Your task to perform on an android device: turn off translation in the chrome app Image 0: 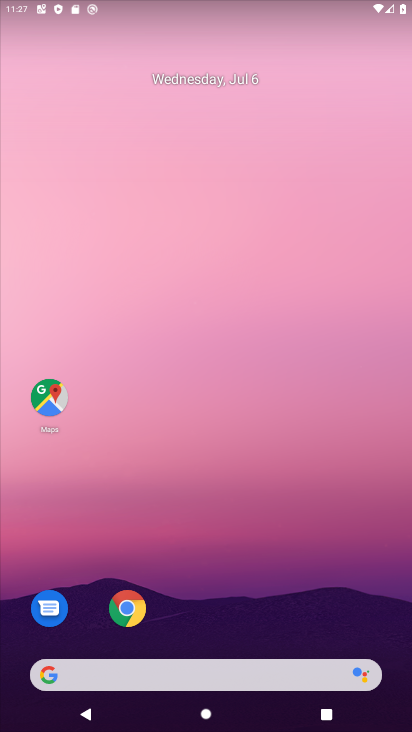
Step 0: click (133, 617)
Your task to perform on an android device: turn off translation in the chrome app Image 1: 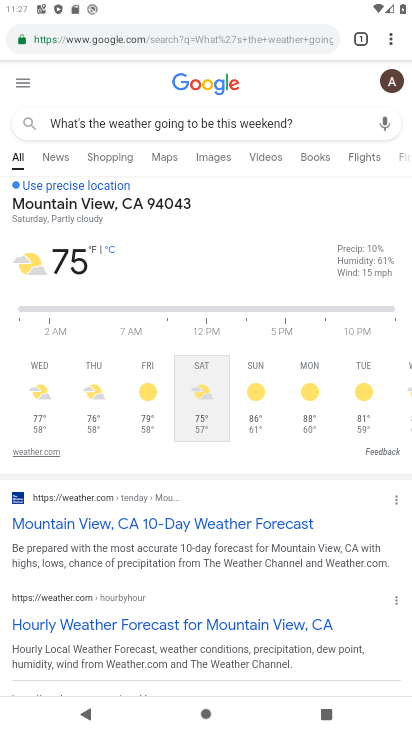
Step 1: drag from (391, 29) to (249, 466)
Your task to perform on an android device: turn off translation in the chrome app Image 2: 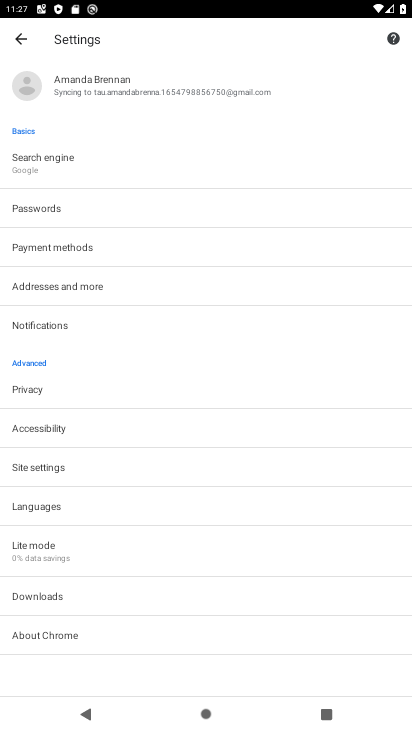
Step 2: click (56, 512)
Your task to perform on an android device: turn off translation in the chrome app Image 3: 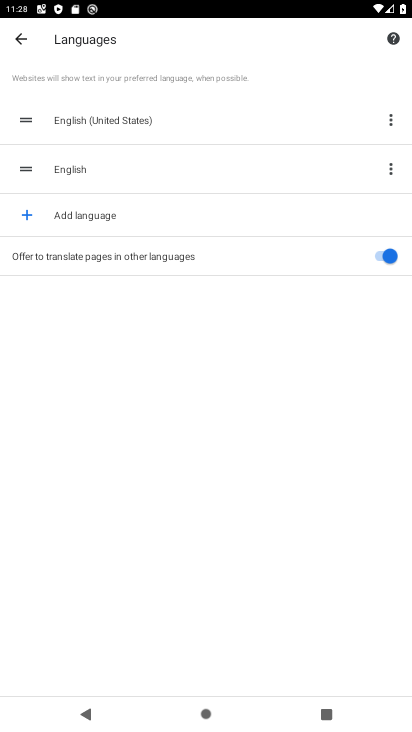
Step 3: click (293, 270)
Your task to perform on an android device: turn off translation in the chrome app Image 4: 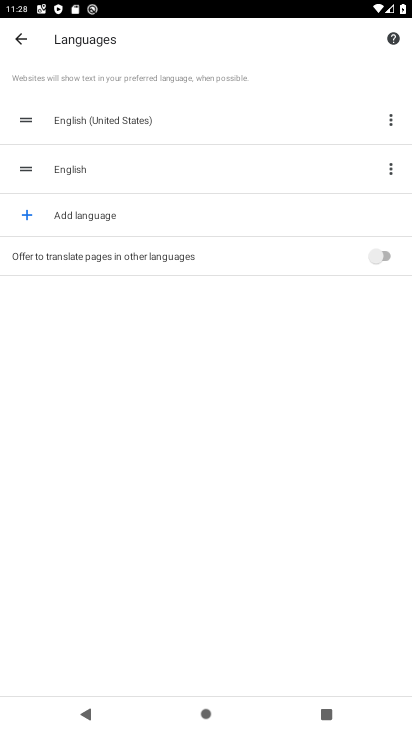
Step 4: task complete